Your task to perform on an android device: Go to wifi settings Image 0: 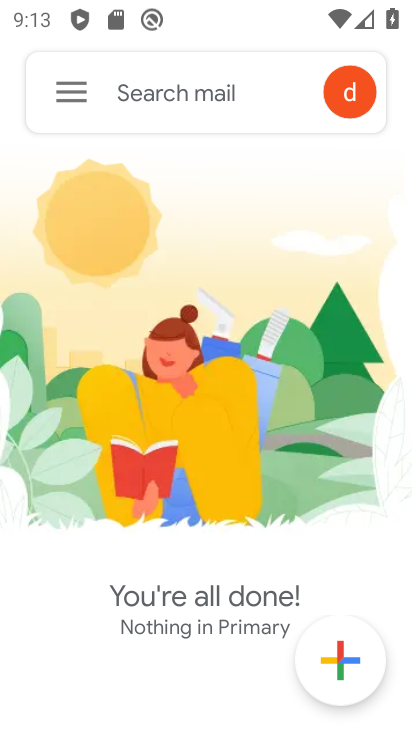
Step 0: press home button
Your task to perform on an android device: Go to wifi settings Image 1: 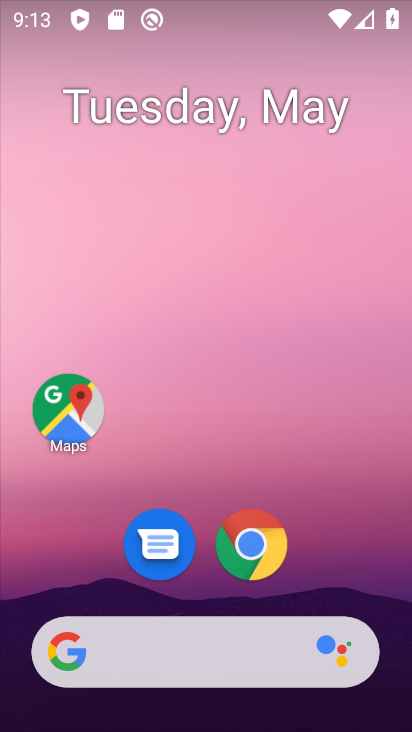
Step 1: drag from (365, 541) to (335, 189)
Your task to perform on an android device: Go to wifi settings Image 2: 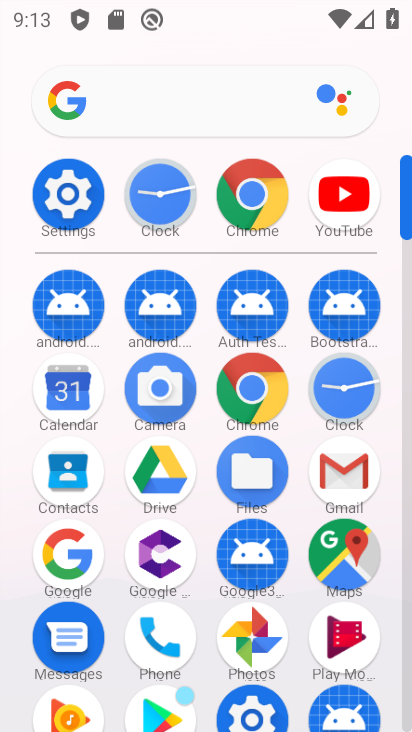
Step 2: click (68, 203)
Your task to perform on an android device: Go to wifi settings Image 3: 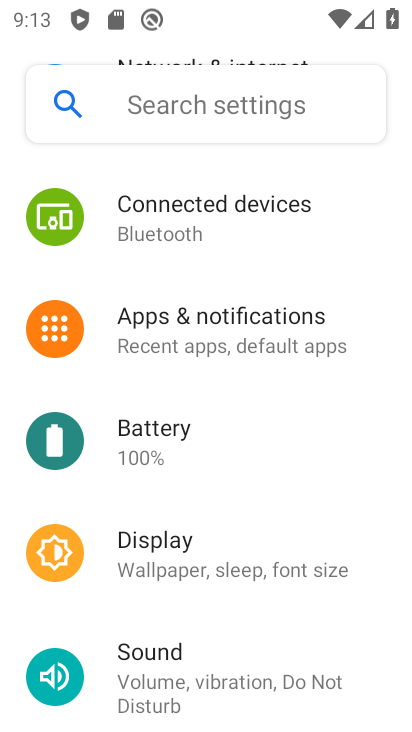
Step 3: drag from (260, 613) to (260, 365)
Your task to perform on an android device: Go to wifi settings Image 4: 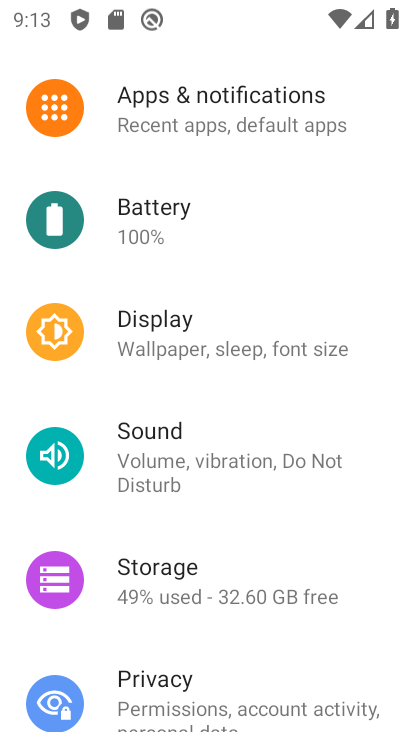
Step 4: drag from (279, 219) to (236, 632)
Your task to perform on an android device: Go to wifi settings Image 5: 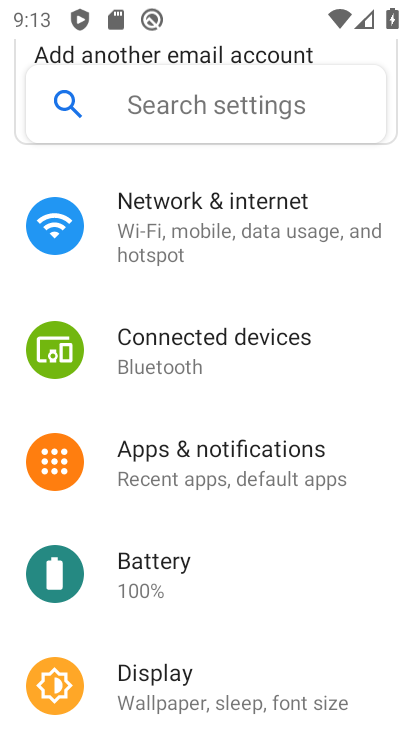
Step 5: click (230, 249)
Your task to perform on an android device: Go to wifi settings Image 6: 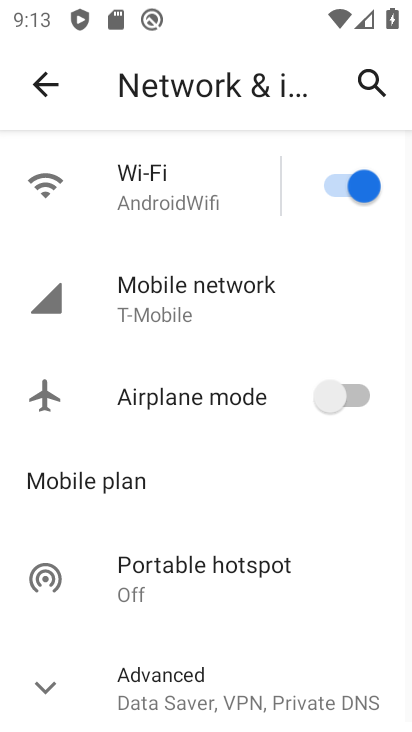
Step 6: click (198, 218)
Your task to perform on an android device: Go to wifi settings Image 7: 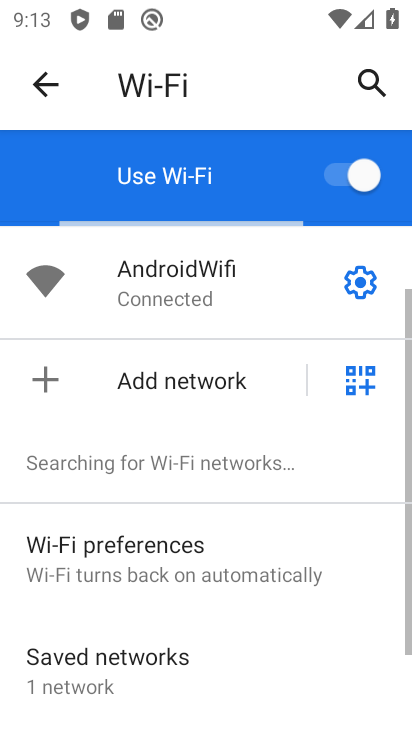
Step 7: click (344, 300)
Your task to perform on an android device: Go to wifi settings Image 8: 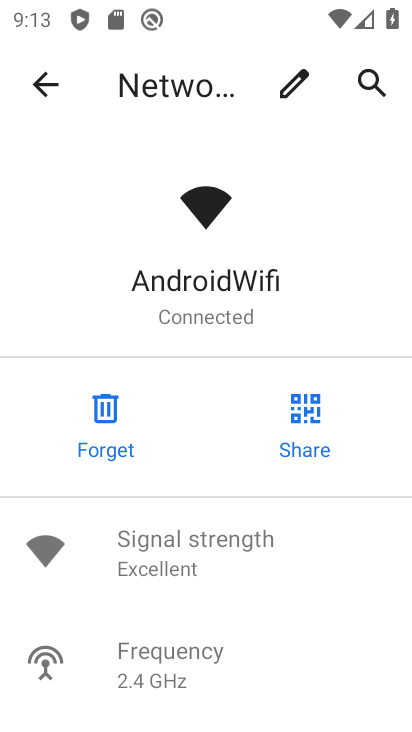
Step 8: task complete